Your task to perform on an android device: Open Google Maps and go to "Timeline" Image 0: 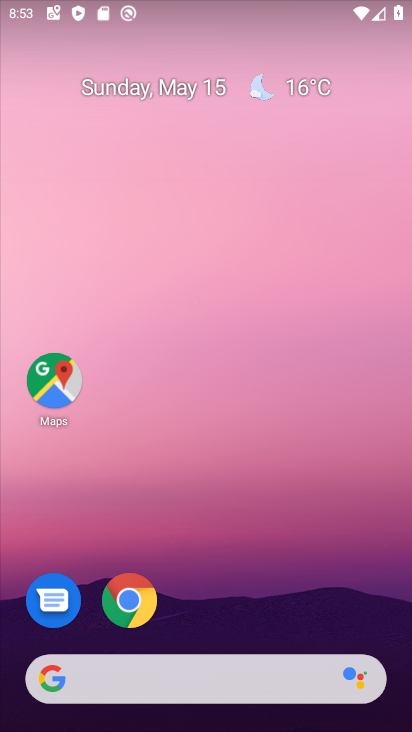
Step 0: click (54, 379)
Your task to perform on an android device: Open Google Maps and go to "Timeline" Image 1: 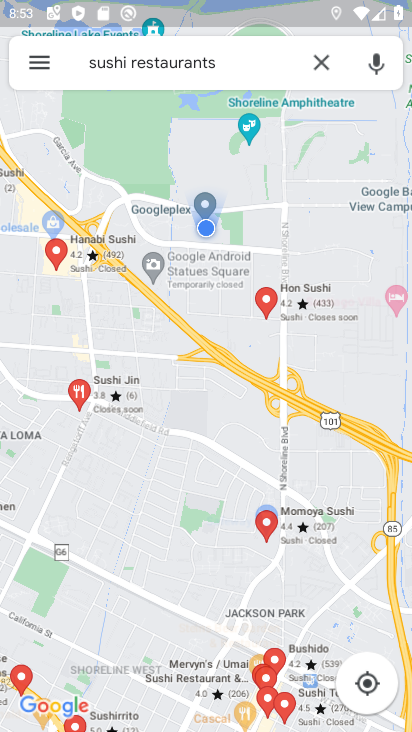
Step 1: click (23, 60)
Your task to perform on an android device: Open Google Maps and go to "Timeline" Image 2: 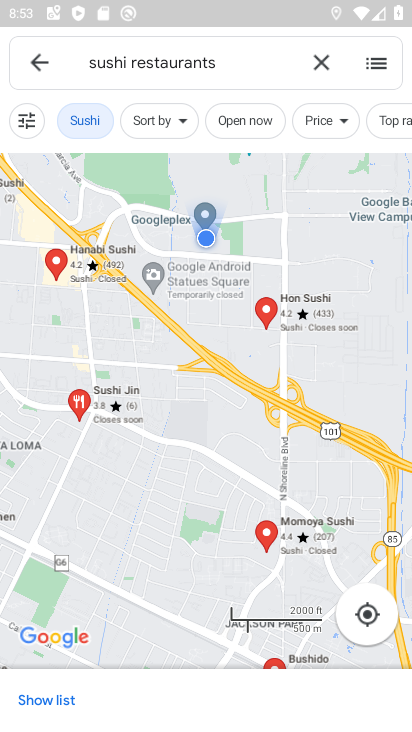
Step 2: click (331, 65)
Your task to perform on an android device: Open Google Maps and go to "Timeline" Image 3: 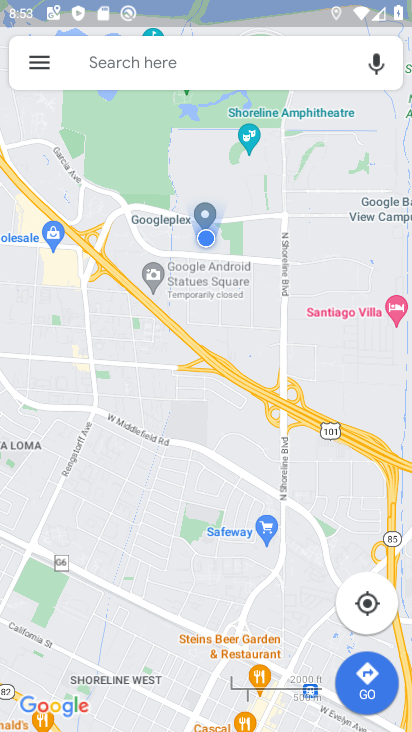
Step 3: click (31, 65)
Your task to perform on an android device: Open Google Maps and go to "Timeline" Image 4: 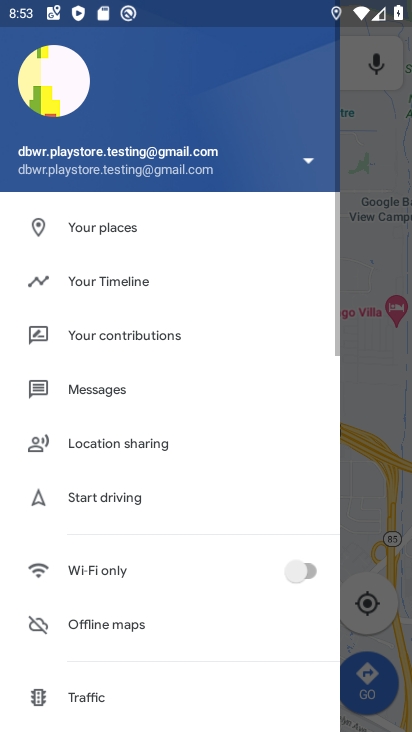
Step 4: click (122, 290)
Your task to perform on an android device: Open Google Maps and go to "Timeline" Image 5: 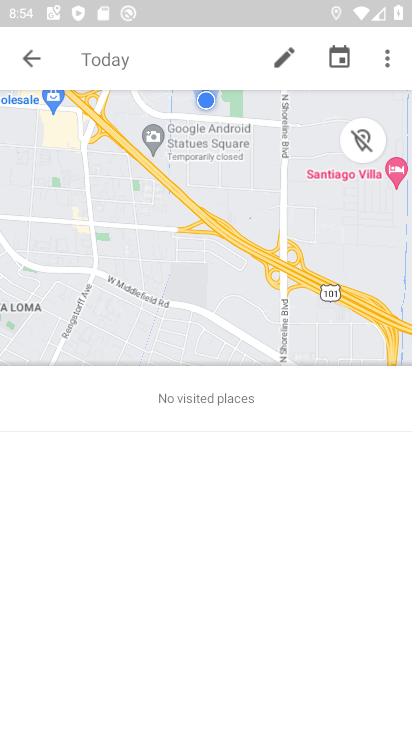
Step 5: task complete